Your task to perform on an android device: Open Wikipedia Image 0: 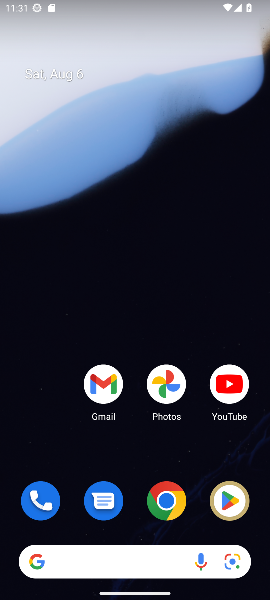
Step 0: click (169, 509)
Your task to perform on an android device: Open Wikipedia Image 1: 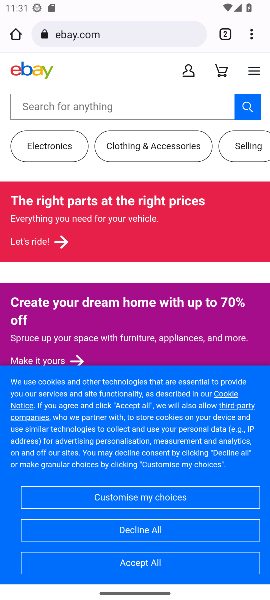
Step 1: press back button
Your task to perform on an android device: Open Wikipedia Image 2: 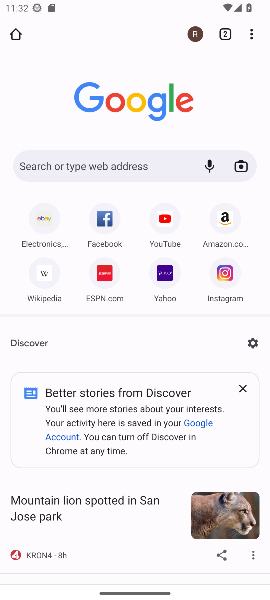
Step 2: click (45, 275)
Your task to perform on an android device: Open Wikipedia Image 3: 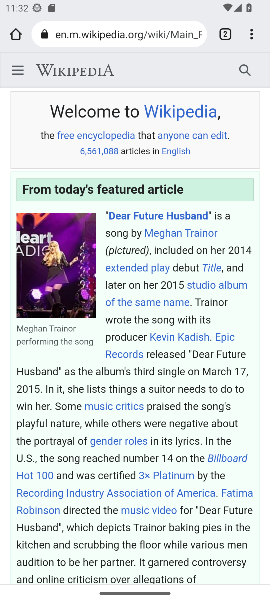
Step 3: task complete